Your task to perform on an android device: find photos in the google photos app Image 0: 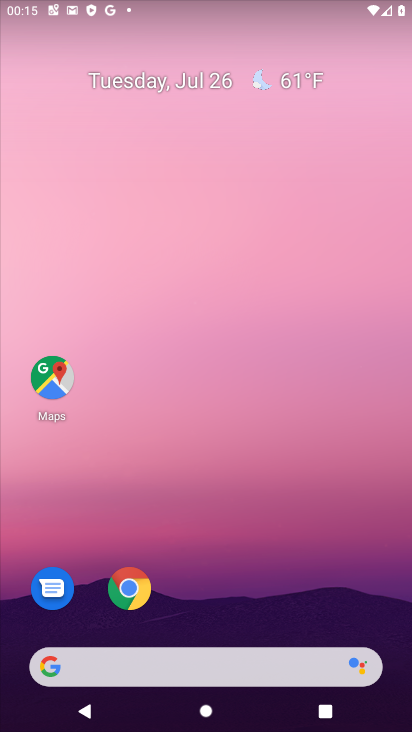
Step 0: press home button
Your task to perform on an android device: find photos in the google photos app Image 1: 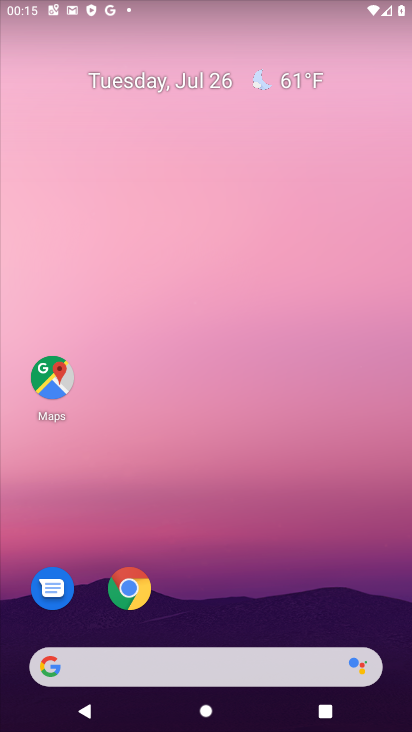
Step 1: drag from (192, 621) to (174, 90)
Your task to perform on an android device: find photos in the google photos app Image 2: 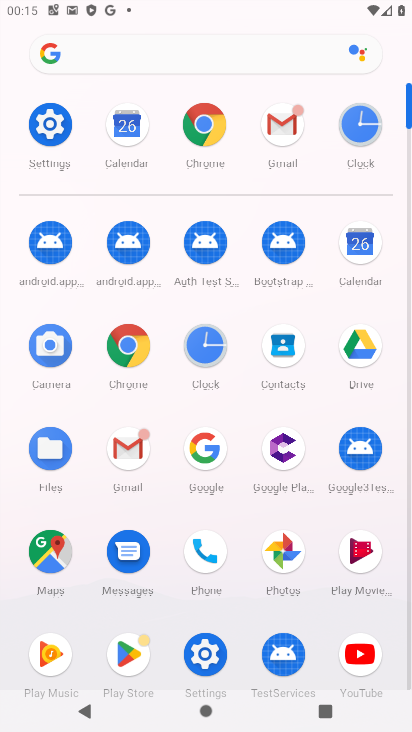
Step 2: click (277, 547)
Your task to perform on an android device: find photos in the google photos app Image 3: 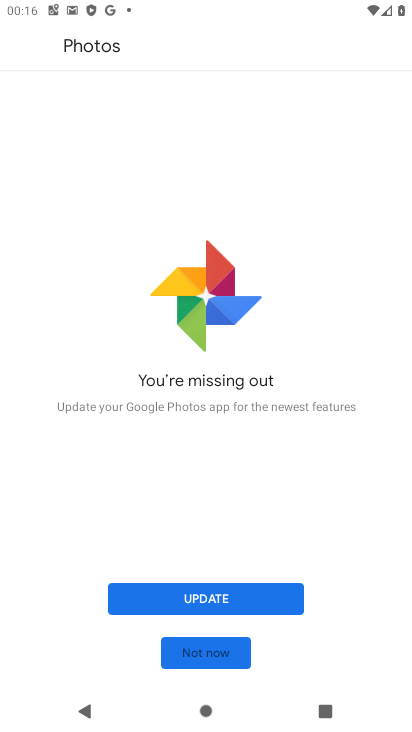
Step 3: click (197, 596)
Your task to perform on an android device: find photos in the google photos app Image 4: 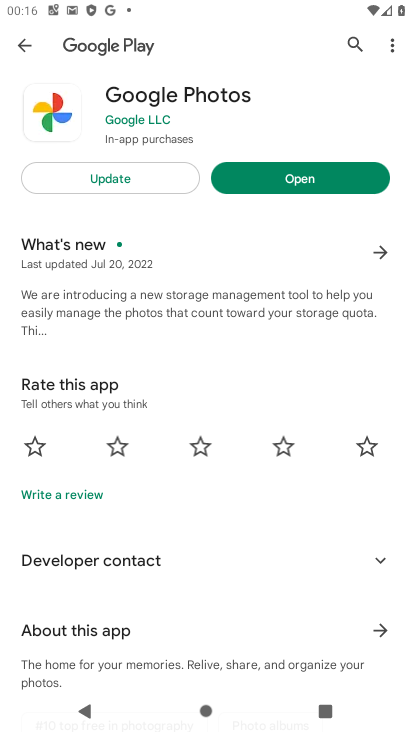
Step 4: click (106, 177)
Your task to perform on an android device: find photos in the google photos app Image 5: 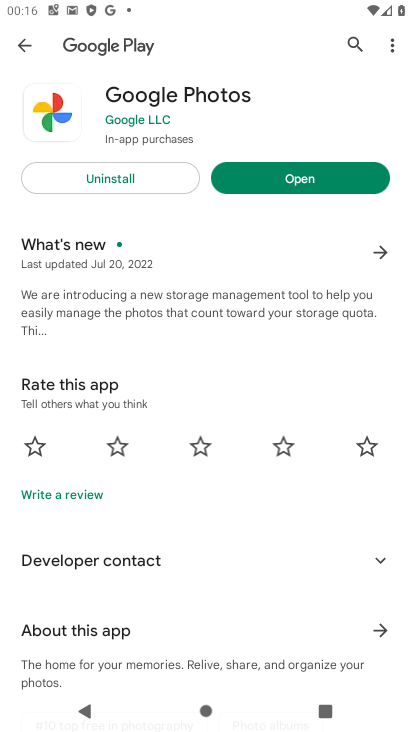
Step 5: click (302, 172)
Your task to perform on an android device: find photos in the google photos app Image 6: 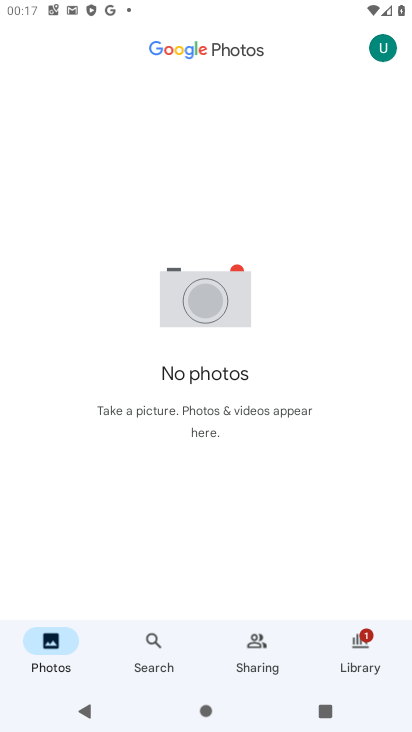
Step 6: task complete